Your task to perform on an android device: Go to Amazon Image 0: 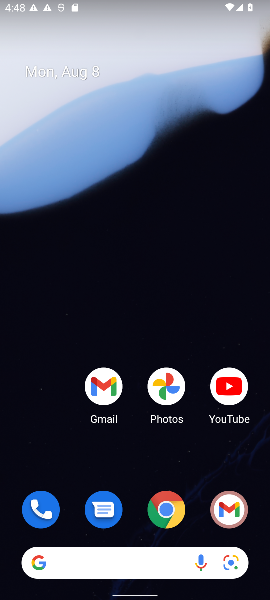
Step 0: click (155, 511)
Your task to perform on an android device: Go to Amazon Image 1: 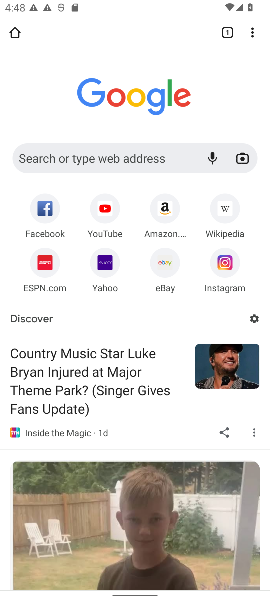
Step 1: click (165, 209)
Your task to perform on an android device: Go to Amazon Image 2: 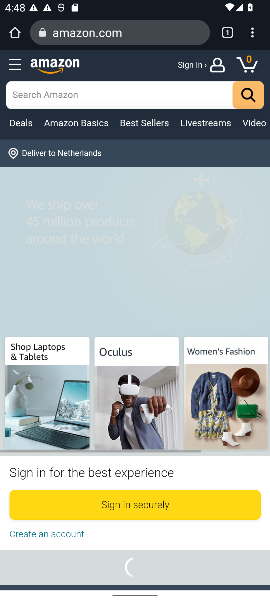
Step 2: task complete